Your task to perform on an android device: check google app version Image 0: 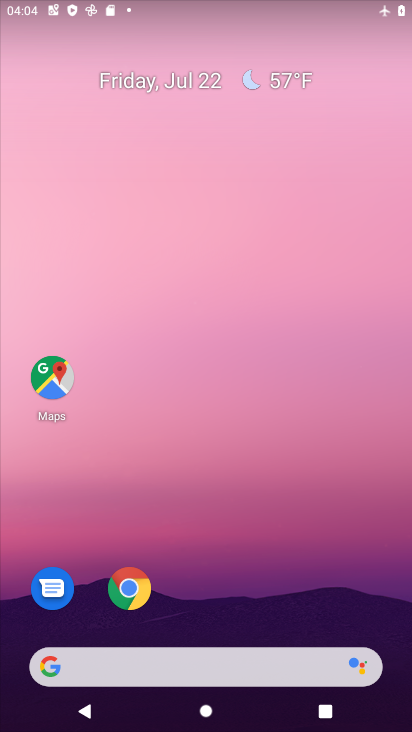
Step 0: drag from (199, 646) to (206, 123)
Your task to perform on an android device: check google app version Image 1: 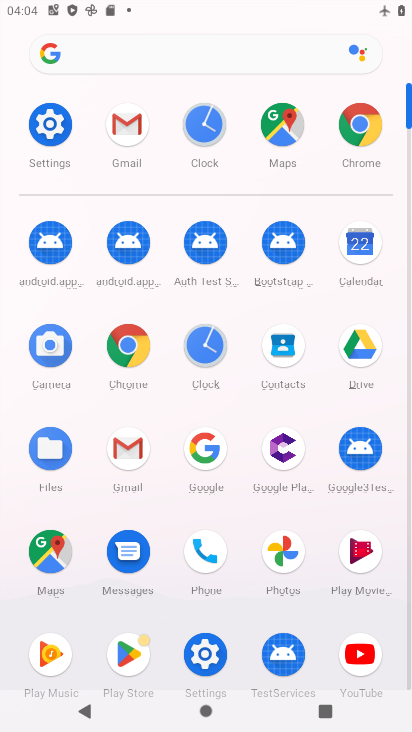
Step 1: click (215, 455)
Your task to perform on an android device: check google app version Image 2: 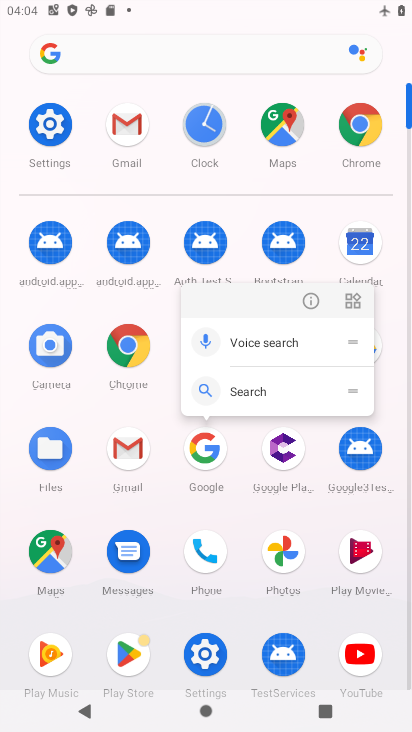
Step 2: click (300, 312)
Your task to perform on an android device: check google app version Image 3: 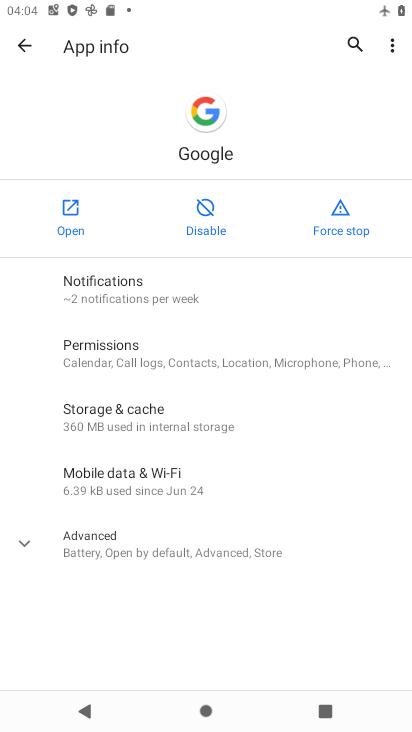
Step 3: click (160, 559)
Your task to perform on an android device: check google app version Image 4: 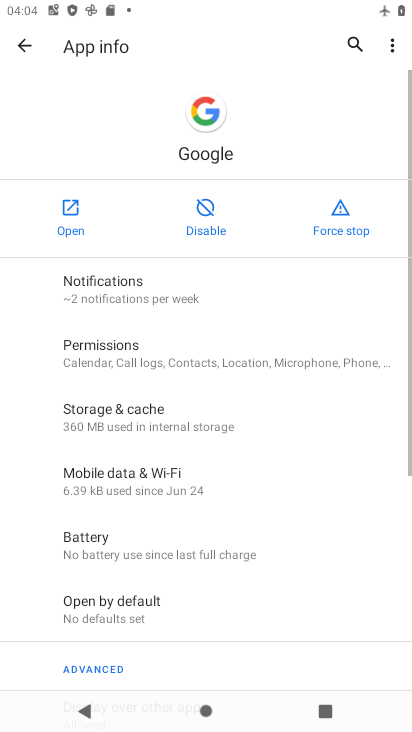
Step 4: task complete